Your task to perform on an android device: toggle pop-ups in chrome Image 0: 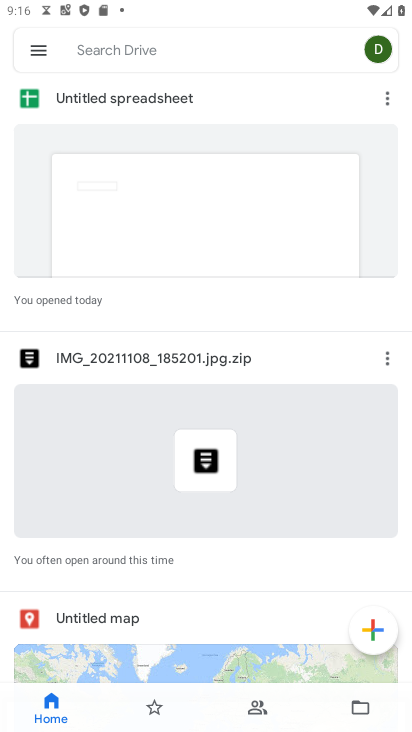
Step 0: press home button
Your task to perform on an android device: toggle pop-ups in chrome Image 1: 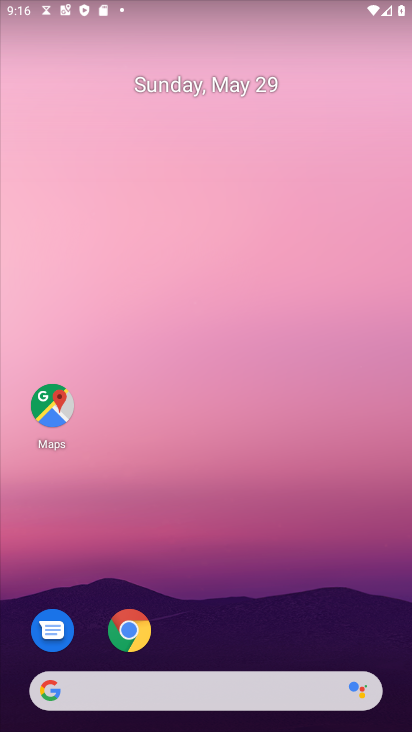
Step 1: click (122, 636)
Your task to perform on an android device: toggle pop-ups in chrome Image 2: 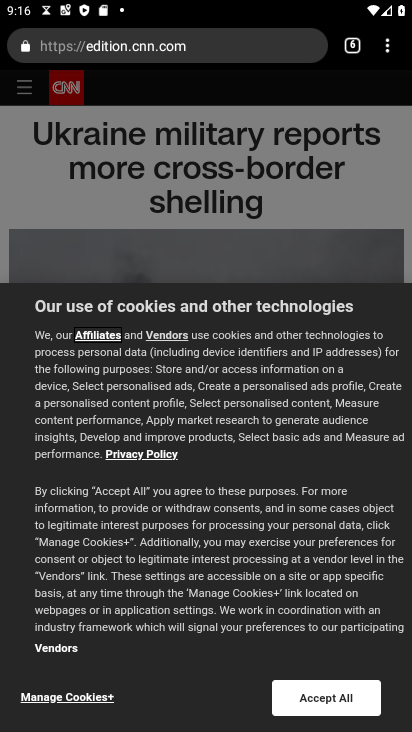
Step 2: click (400, 46)
Your task to perform on an android device: toggle pop-ups in chrome Image 3: 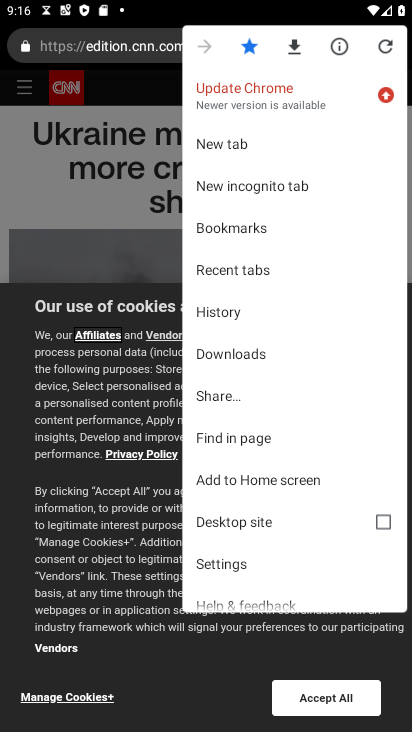
Step 3: click (230, 562)
Your task to perform on an android device: toggle pop-ups in chrome Image 4: 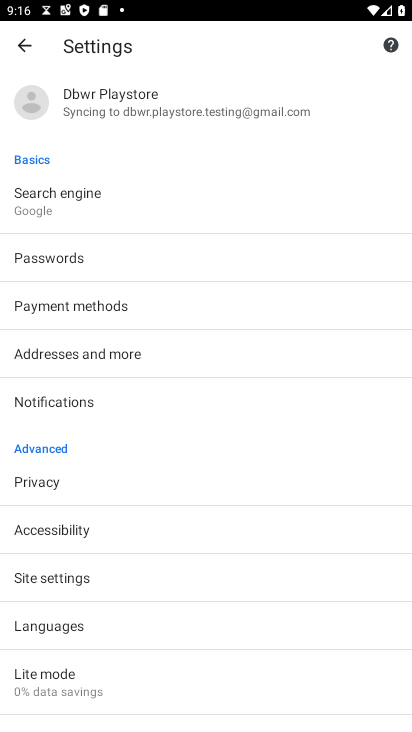
Step 4: click (163, 581)
Your task to perform on an android device: toggle pop-ups in chrome Image 5: 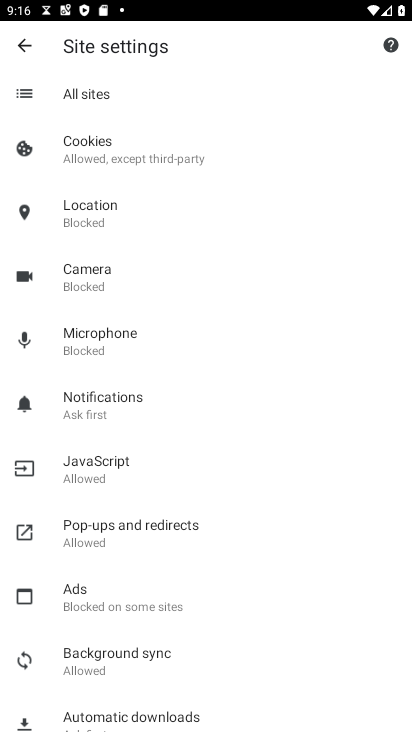
Step 5: click (155, 540)
Your task to perform on an android device: toggle pop-ups in chrome Image 6: 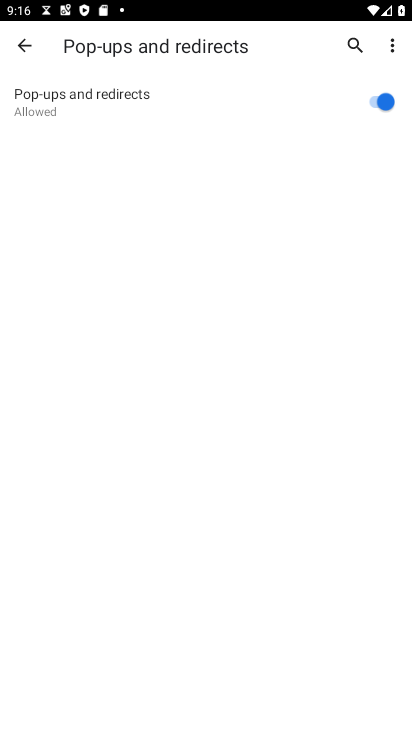
Step 6: click (375, 94)
Your task to perform on an android device: toggle pop-ups in chrome Image 7: 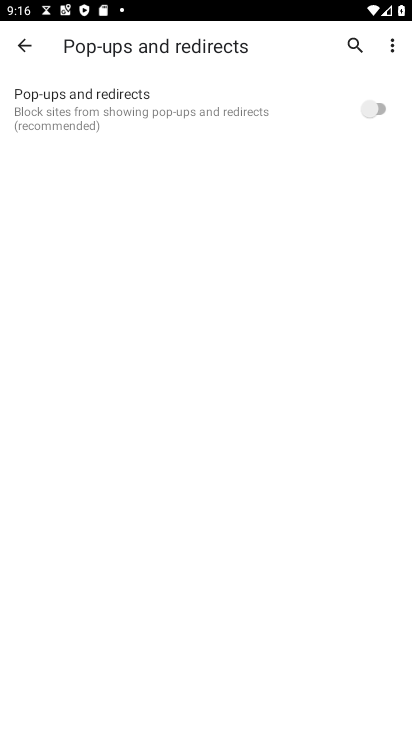
Step 7: task complete